Your task to perform on an android device: Open Reddit.com Image 0: 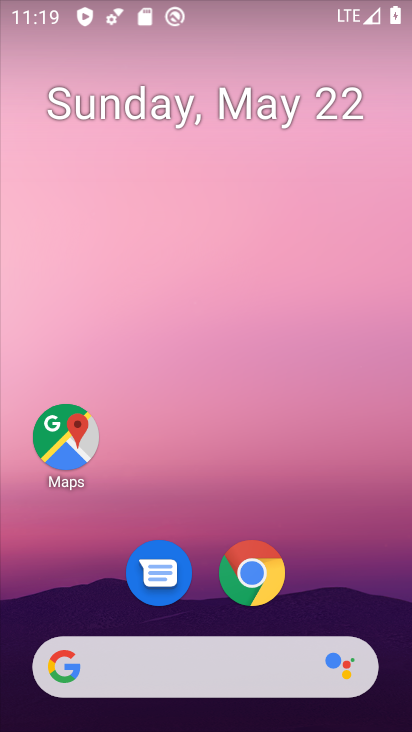
Step 0: click (241, 569)
Your task to perform on an android device: Open Reddit.com Image 1: 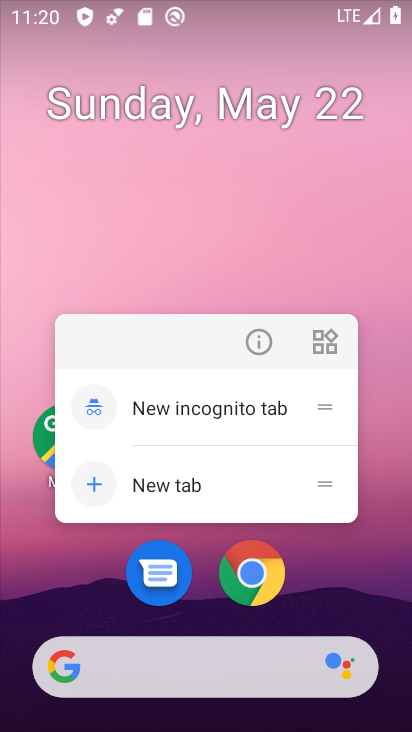
Step 1: click (250, 558)
Your task to perform on an android device: Open Reddit.com Image 2: 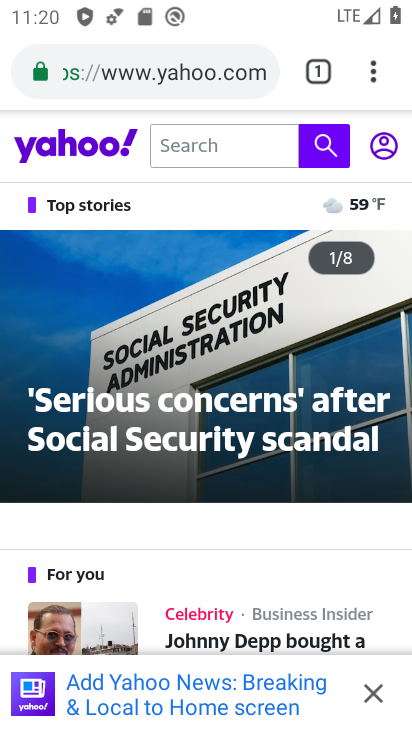
Step 2: click (221, 77)
Your task to perform on an android device: Open Reddit.com Image 3: 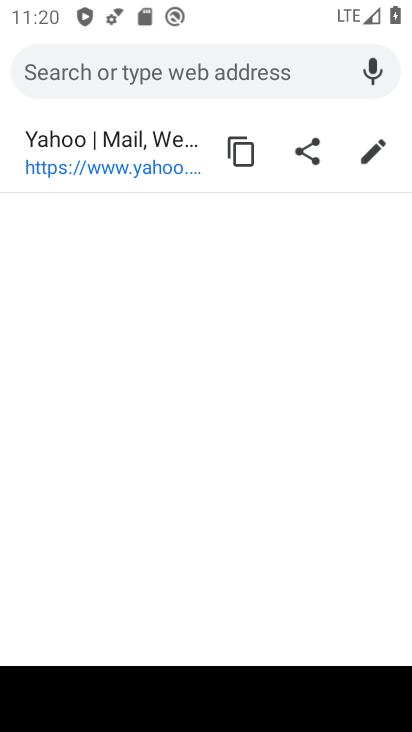
Step 3: type "Reddit.com"
Your task to perform on an android device: Open Reddit.com Image 4: 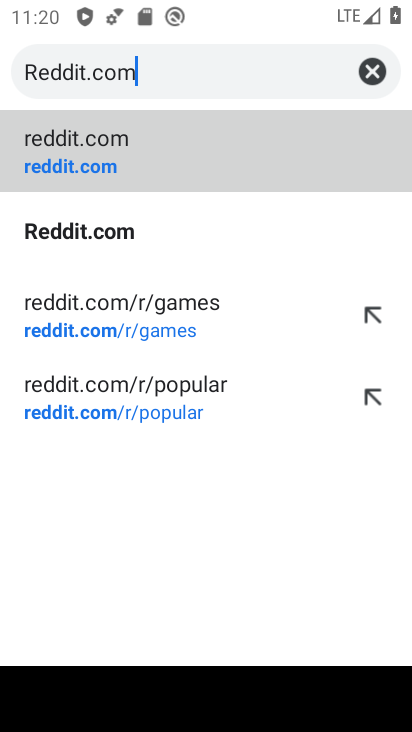
Step 4: click (149, 137)
Your task to perform on an android device: Open Reddit.com Image 5: 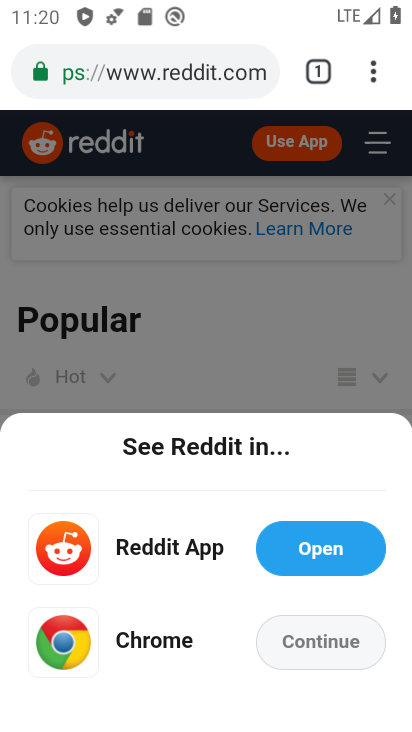
Step 5: task complete